Your task to perform on an android device: Search for a custom-made wallet on Etsy Image 0: 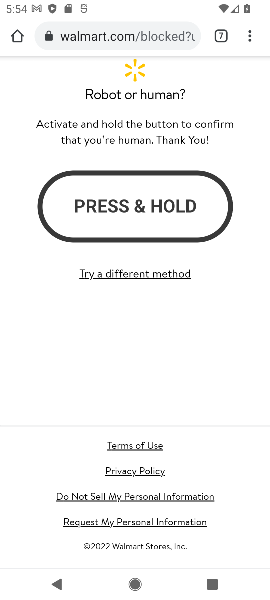
Step 0: press home button
Your task to perform on an android device: Search for a custom-made wallet on Etsy Image 1: 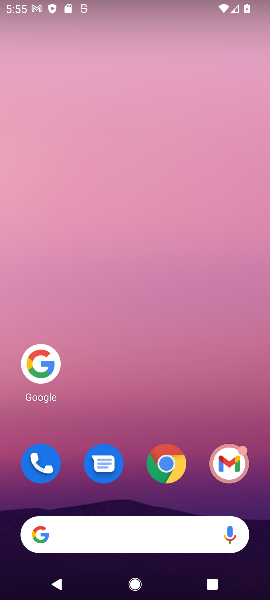
Step 1: click (49, 360)
Your task to perform on an android device: Search for a custom-made wallet on Etsy Image 2: 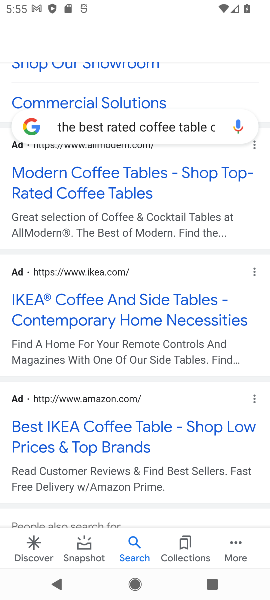
Step 2: click (146, 127)
Your task to perform on an android device: Search for a custom-made wallet on Etsy Image 3: 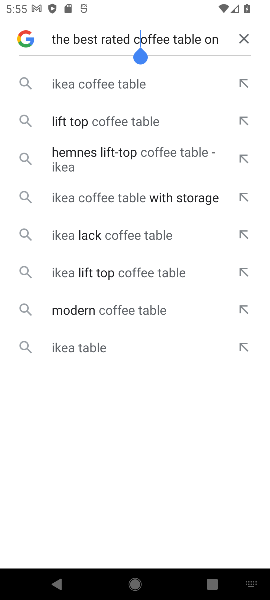
Step 3: click (250, 34)
Your task to perform on an android device: Search for a custom-made wallet on Etsy Image 4: 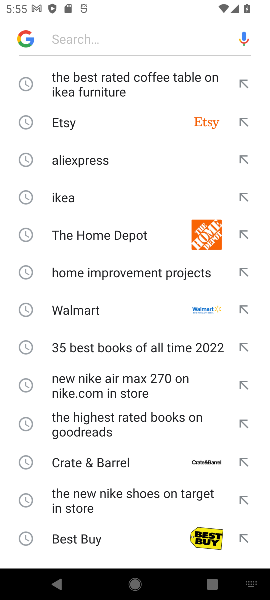
Step 4: click (127, 29)
Your task to perform on an android device: Search for a custom-made wallet on Etsy Image 5: 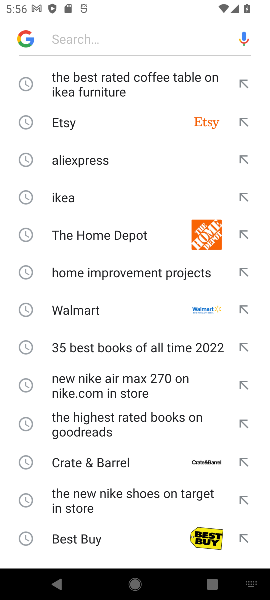
Step 5: type "a custom-made wallet on Etsy "
Your task to perform on an android device: Search for a custom-made wallet on Etsy Image 6: 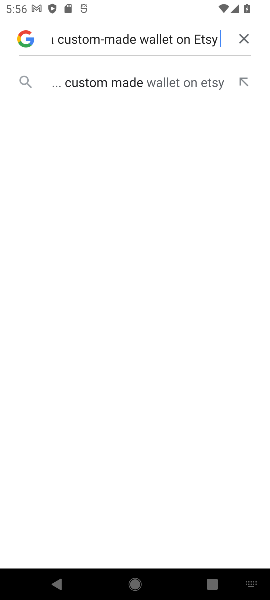
Step 6: click (157, 84)
Your task to perform on an android device: Search for a custom-made wallet on Etsy Image 7: 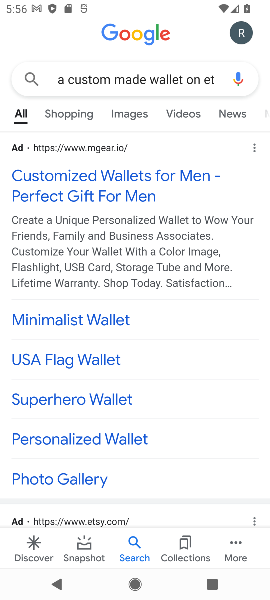
Step 7: click (108, 175)
Your task to perform on an android device: Search for a custom-made wallet on Etsy Image 8: 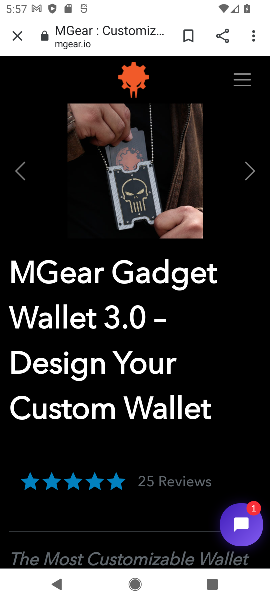
Step 8: task complete